Your task to perform on an android device: Clear the shopping cart on costco. Add razer blade to the cart on costco Image 0: 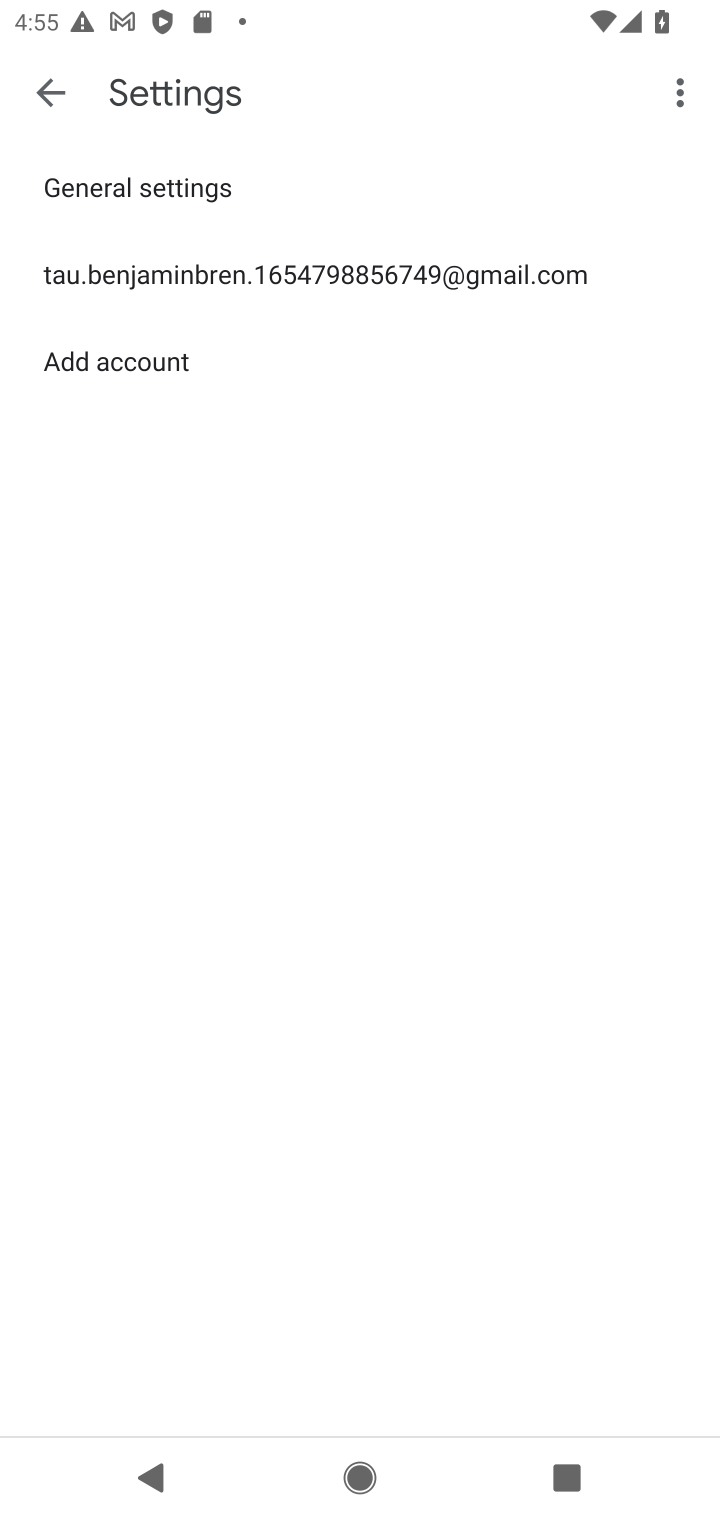
Step 0: press home button
Your task to perform on an android device: Clear the shopping cart on costco. Add razer blade to the cart on costco Image 1: 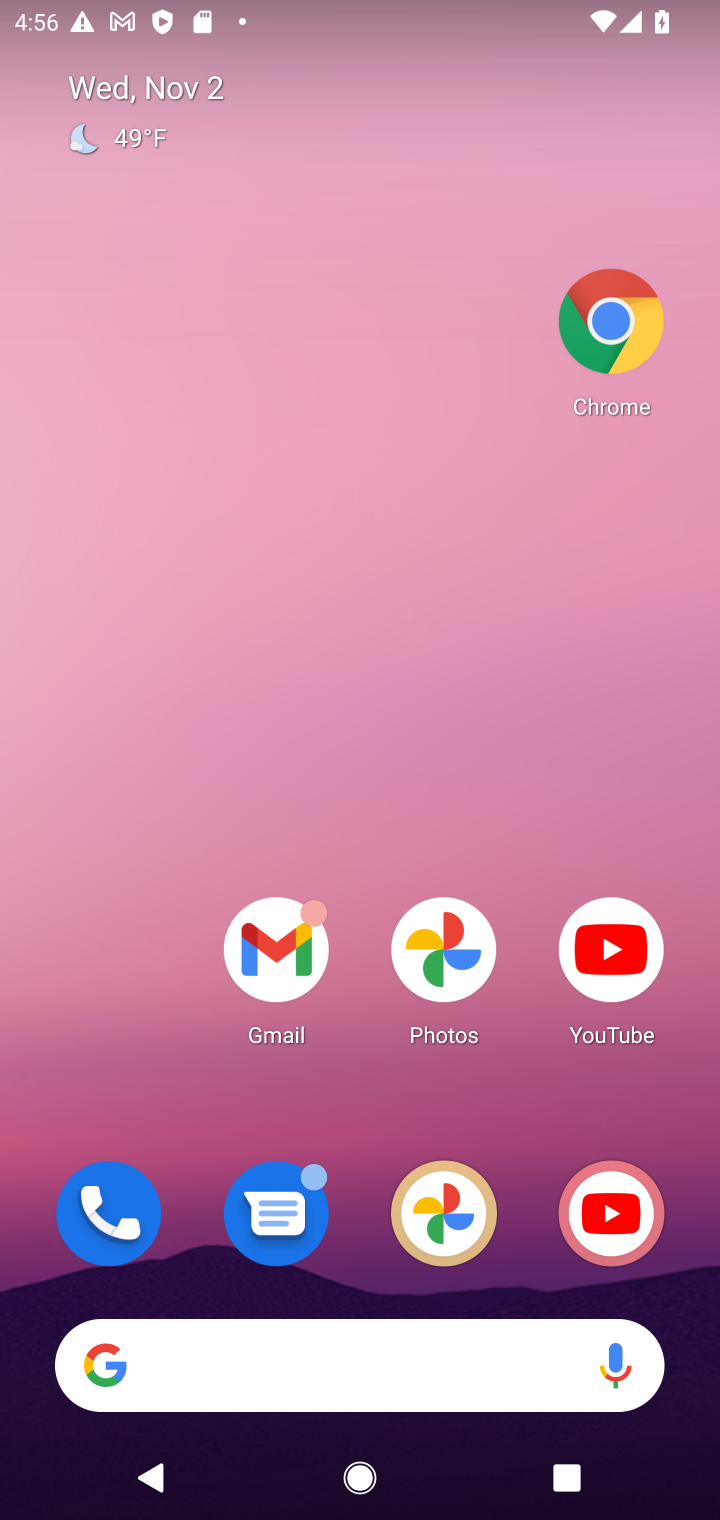
Step 1: drag from (371, 1171) to (464, 4)
Your task to perform on an android device: Clear the shopping cart on costco. Add razer blade to the cart on costco Image 2: 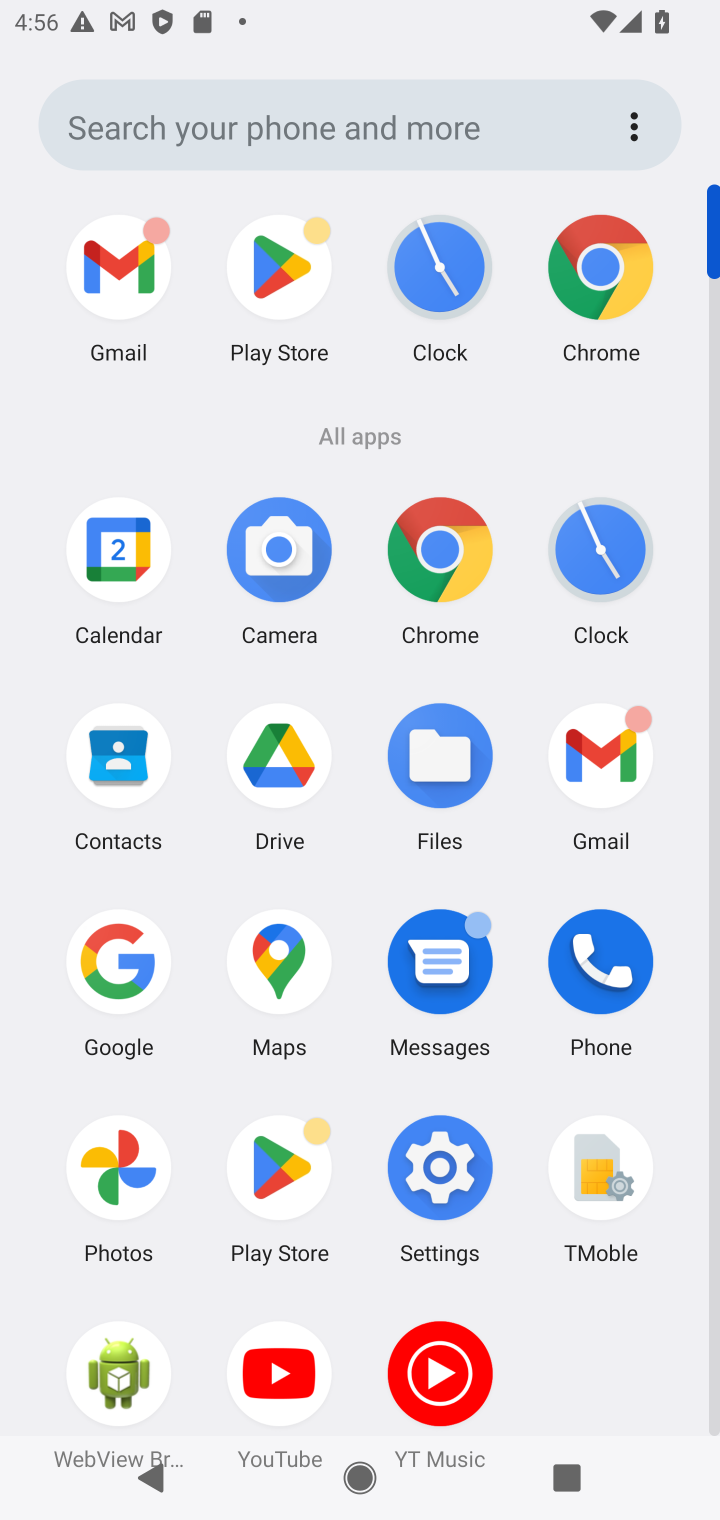
Step 2: click (130, 988)
Your task to perform on an android device: Clear the shopping cart on costco. Add razer blade to the cart on costco Image 3: 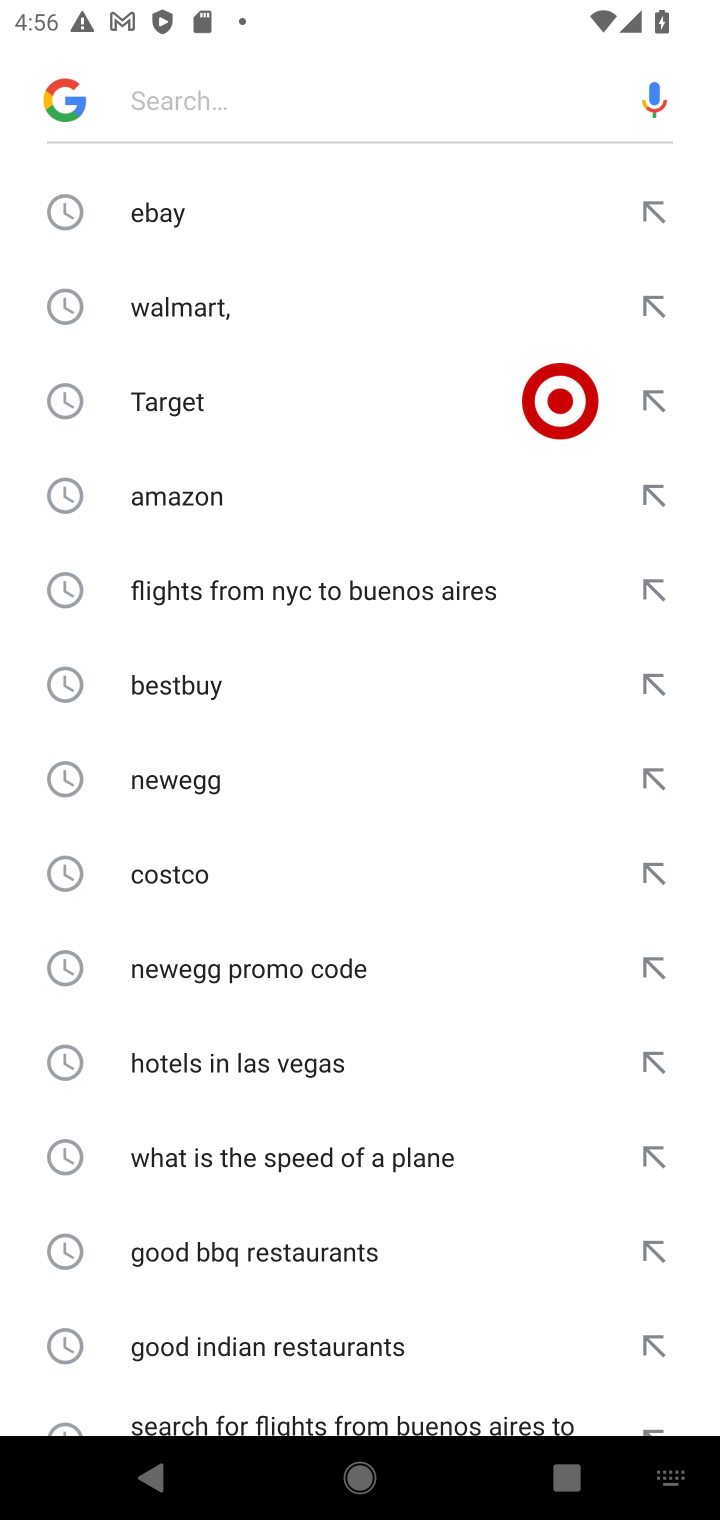
Step 3: type "costco"
Your task to perform on an android device: Clear the shopping cart on costco. Add razer blade to the cart on costco Image 4: 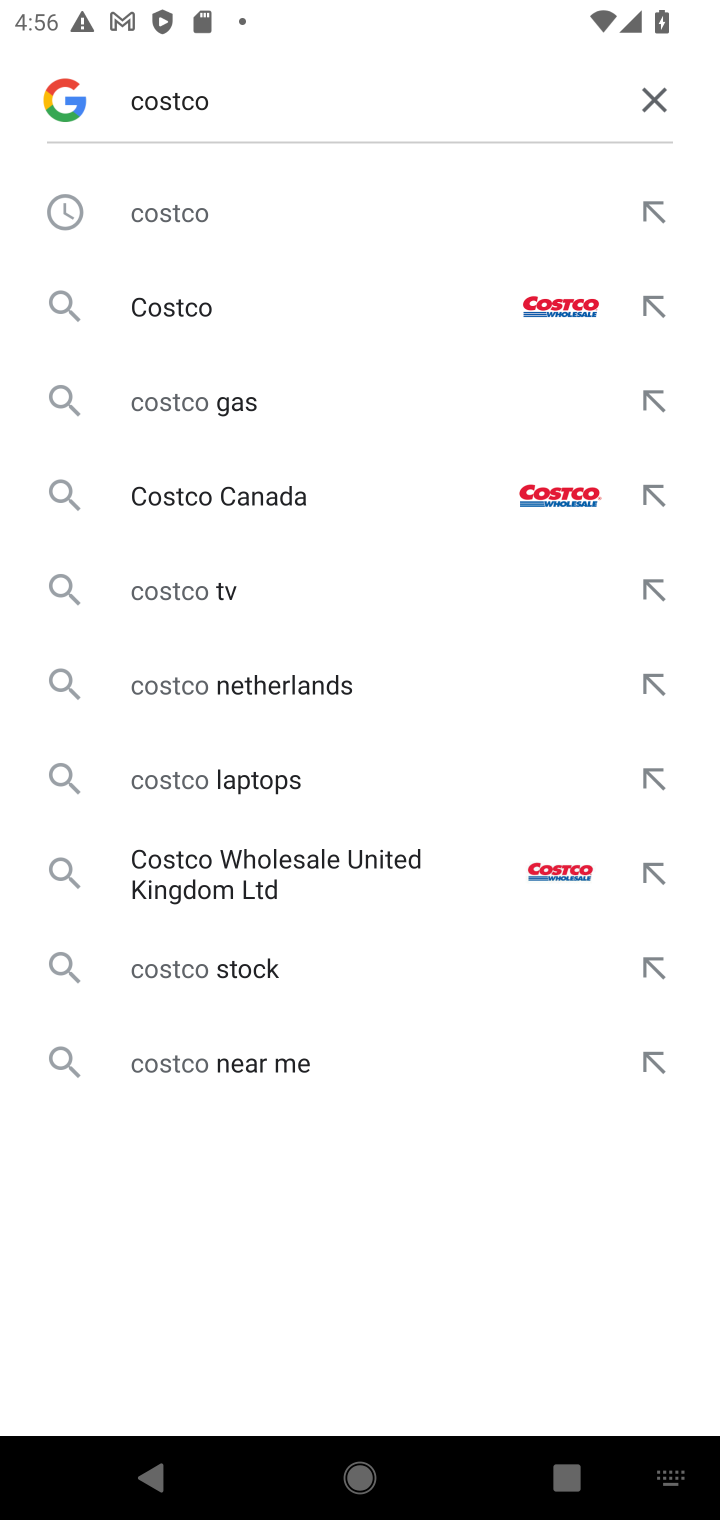
Step 4: click (255, 200)
Your task to perform on an android device: Clear the shopping cart on costco. Add razer blade to the cart on costco Image 5: 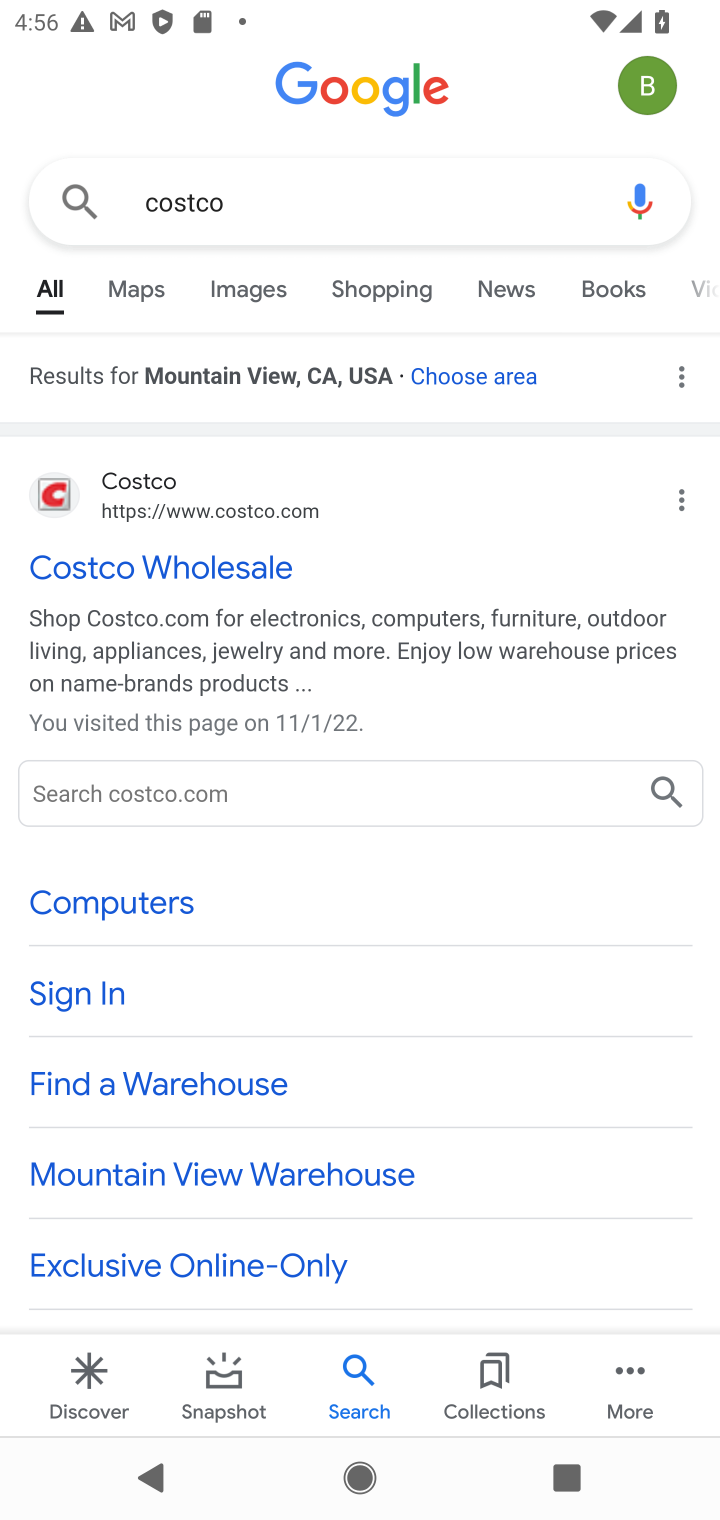
Step 5: click (207, 576)
Your task to perform on an android device: Clear the shopping cart on costco. Add razer blade to the cart on costco Image 6: 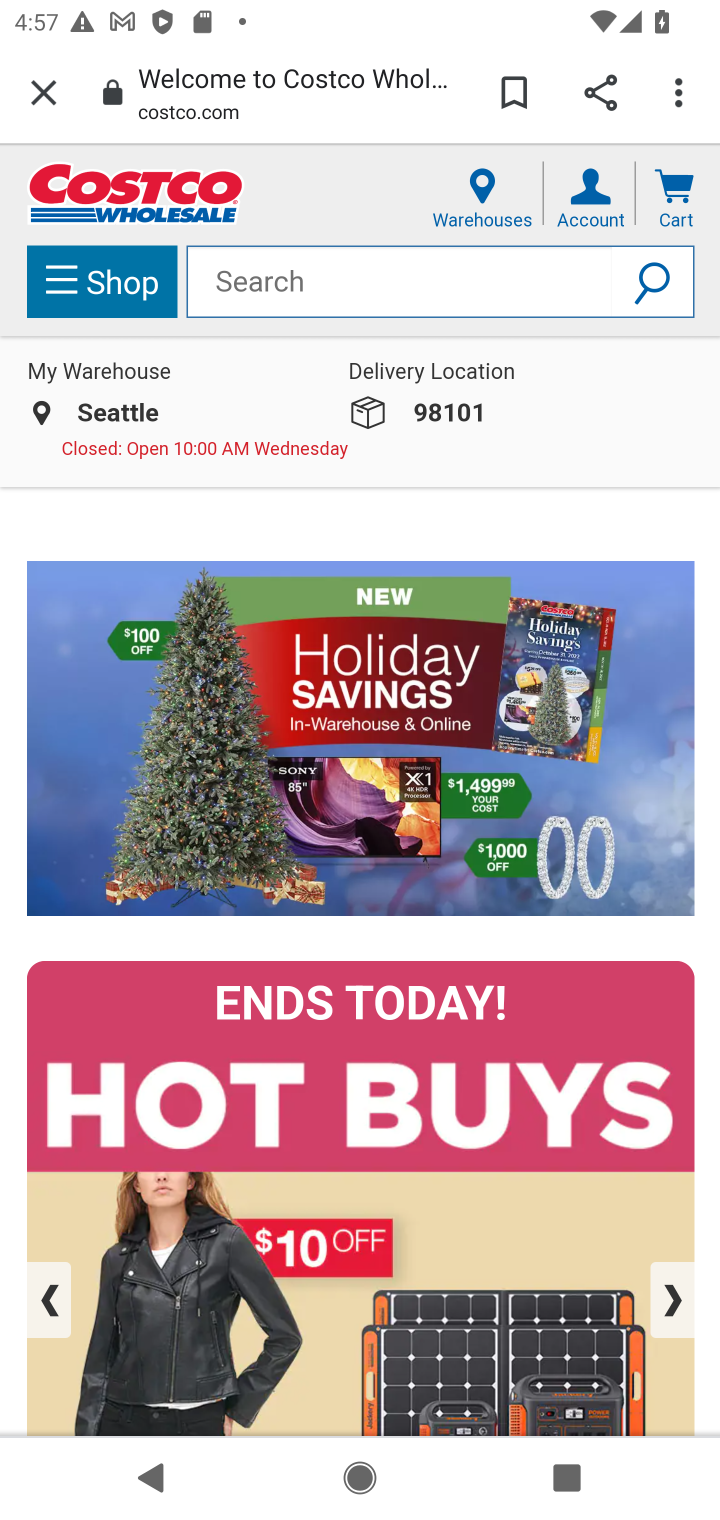
Step 6: click (674, 211)
Your task to perform on an android device: Clear the shopping cart on costco. Add razer blade to the cart on costco Image 7: 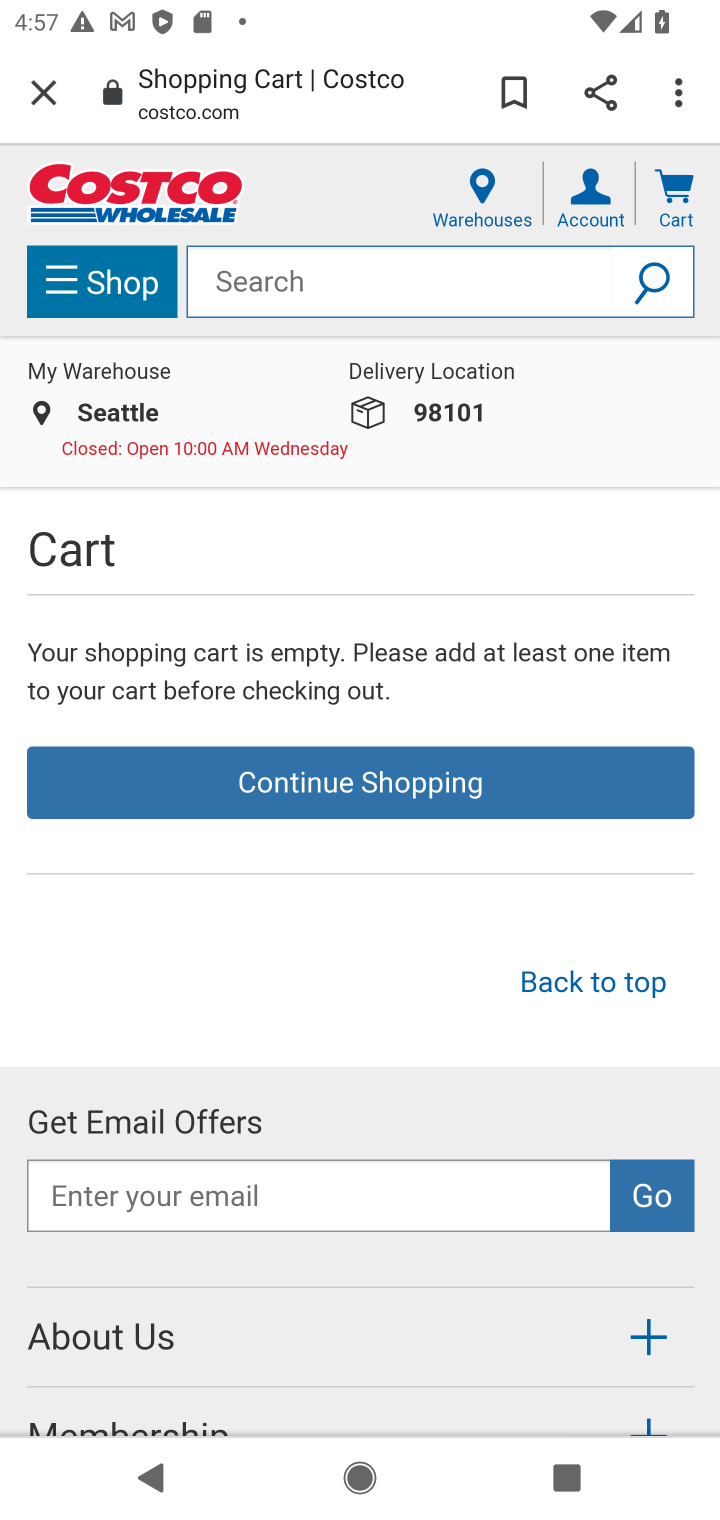
Step 7: click (527, 290)
Your task to perform on an android device: Clear the shopping cart on costco. Add razer blade to the cart on costco Image 8: 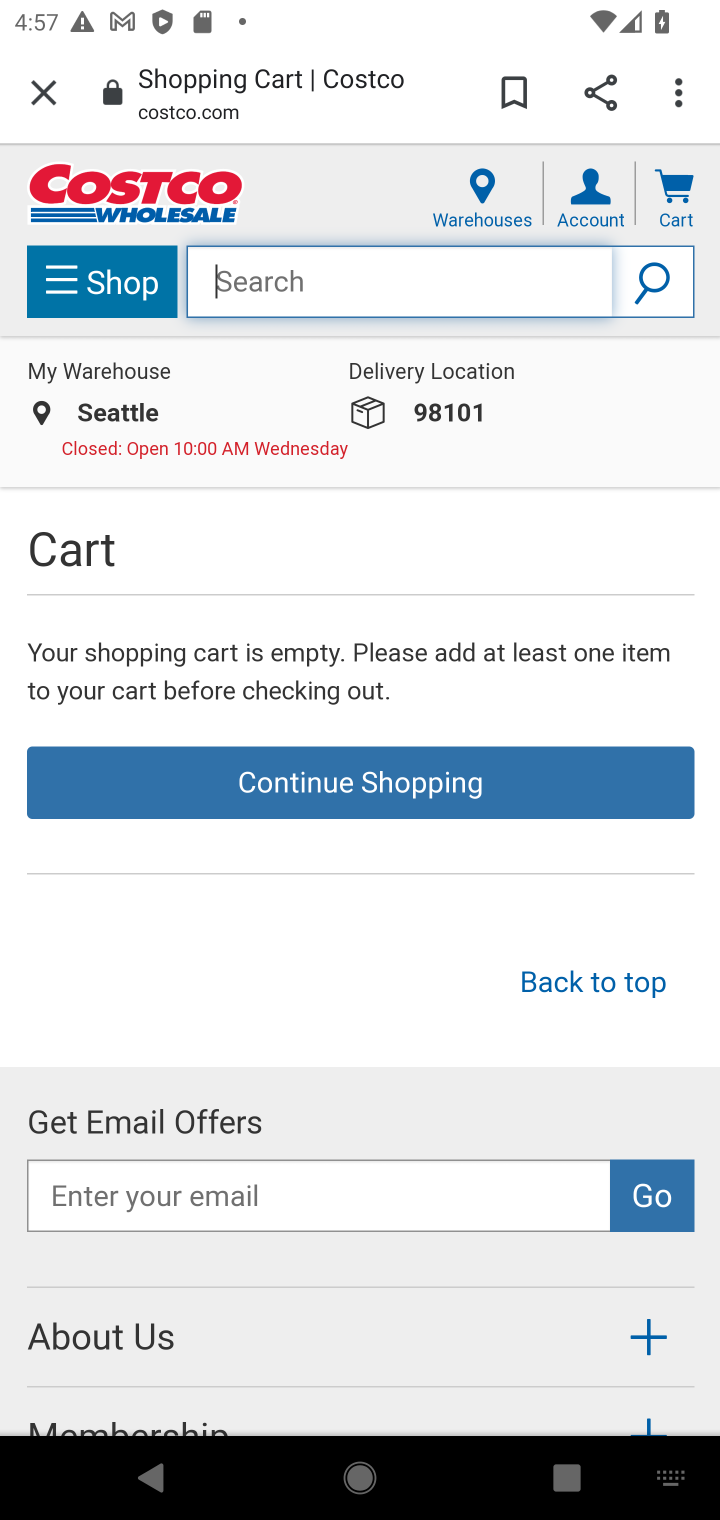
Step 8: type "razer blade"
Your task to perform on an android device: Clear the shopping cart on costco. Add razer blade to the cart on costco Image 9: 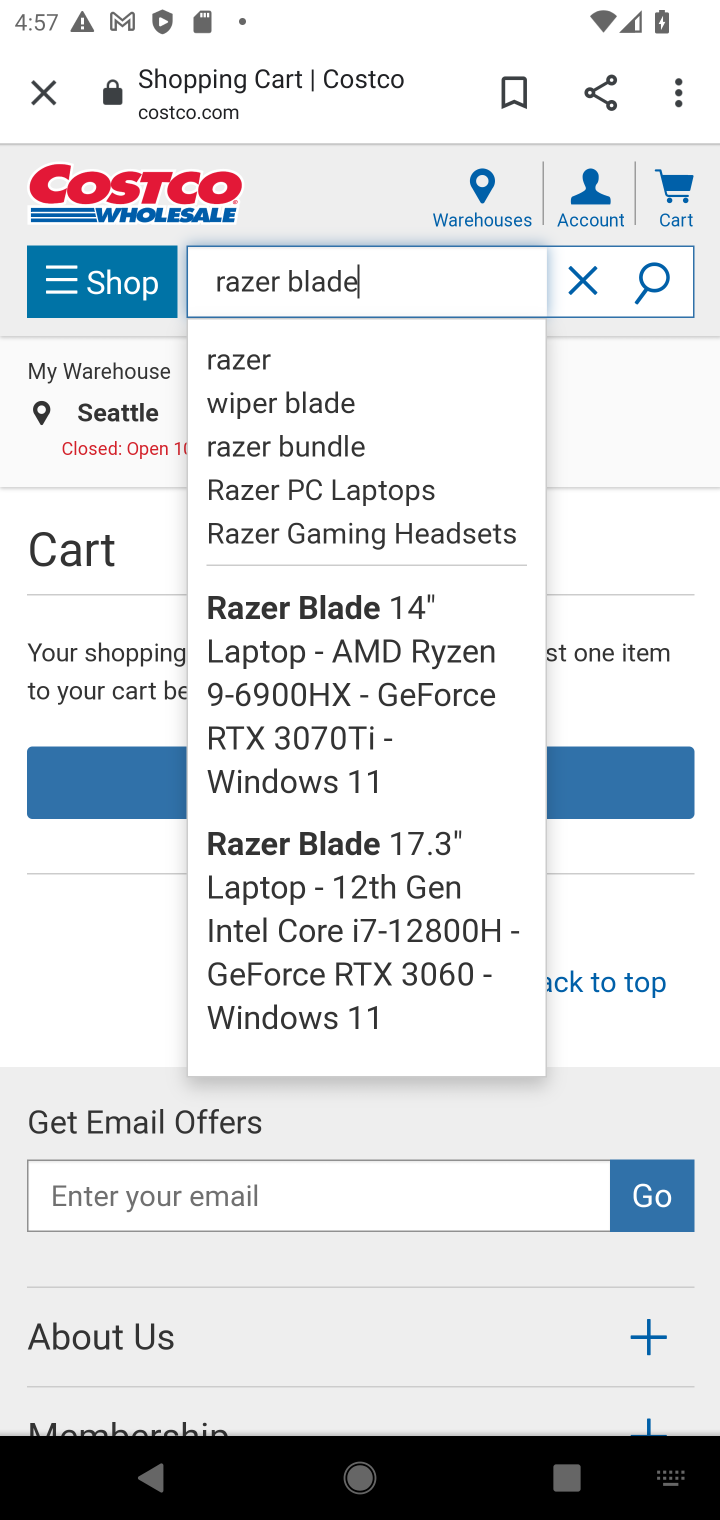
Step 9: click (283, 347)
Your task to perform on an android device: Clear the shopping cart on costco. Add razer blade to the cart on costco Image 10: 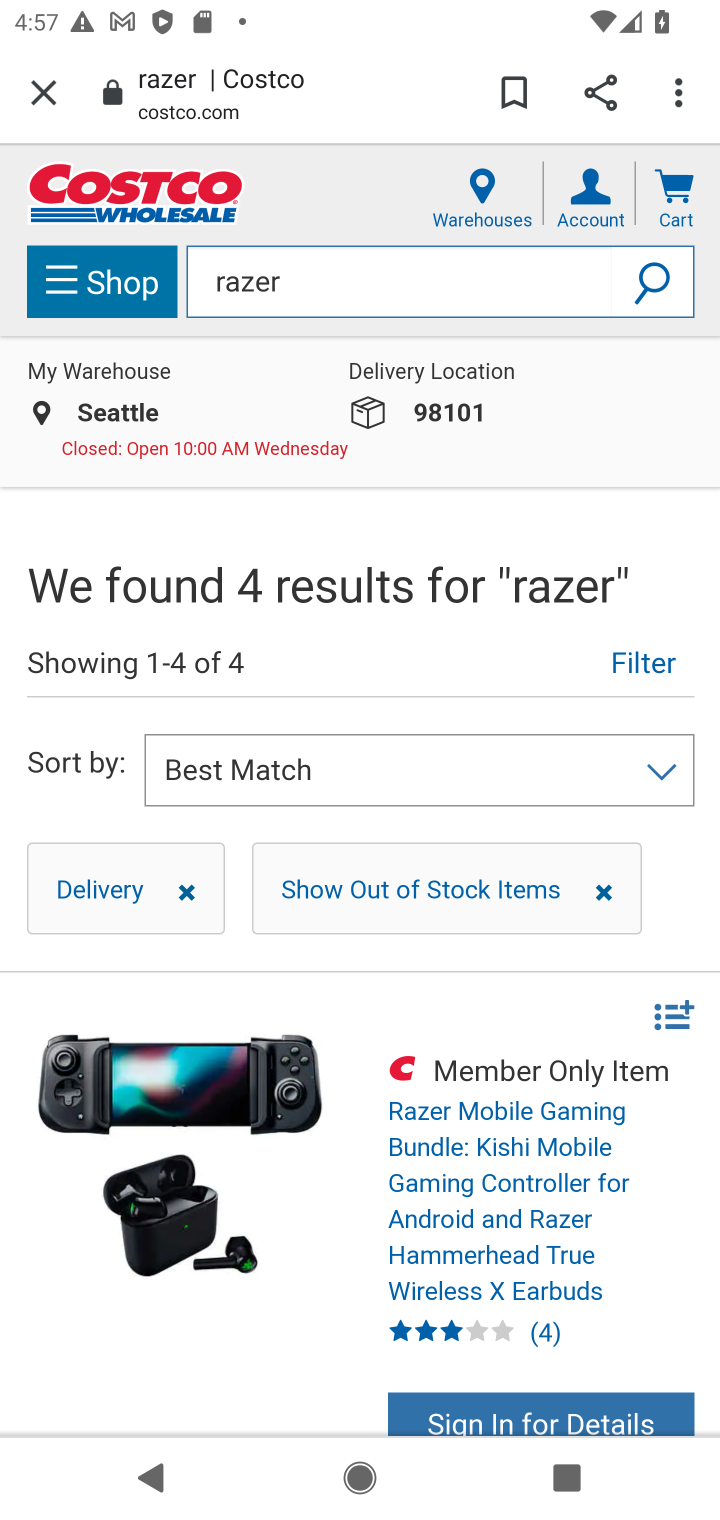
Step 10: click (513, 1123)
Your task to perform on an android device: Clear the shopping cart on costco. Add razer blade to the cart on costco Image 11: 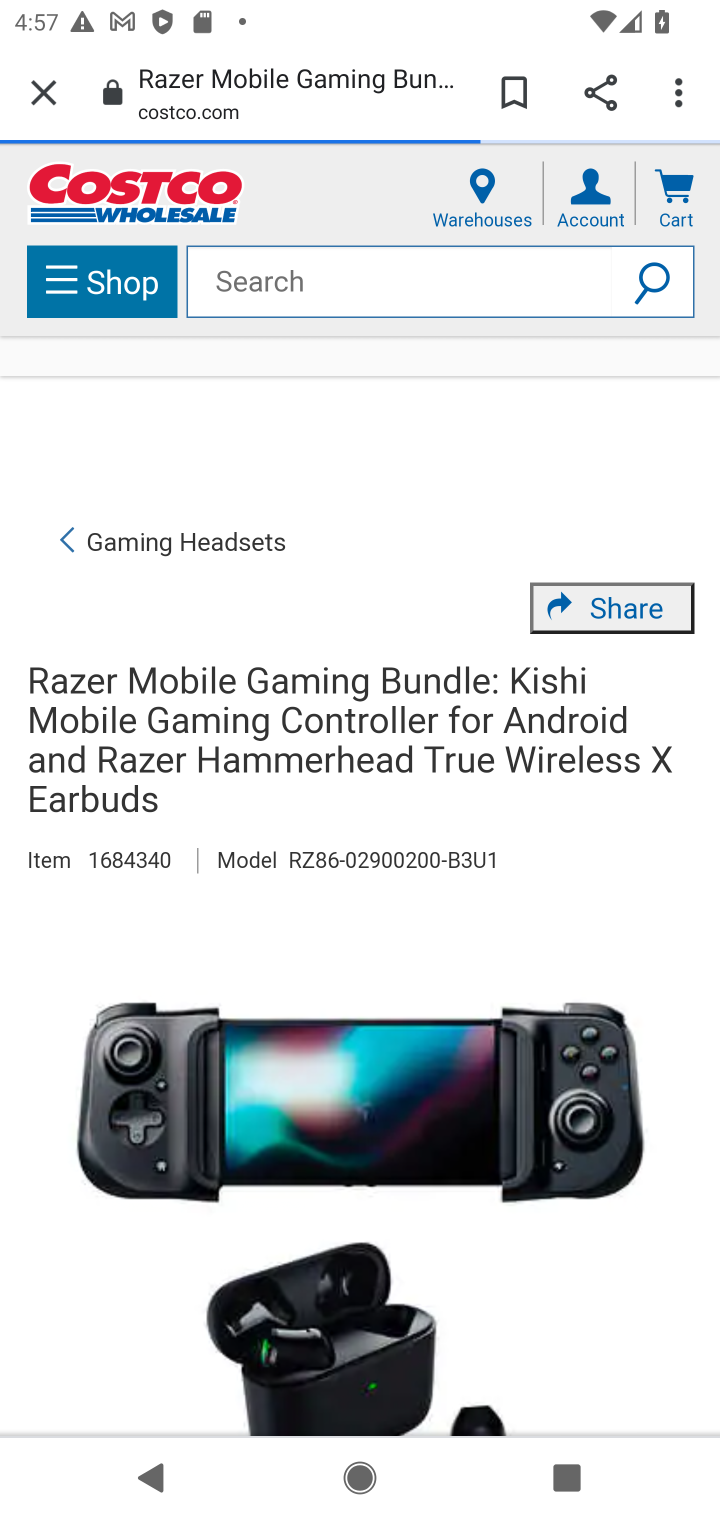
Step 11: task complete